Your task to perform on an android device: Go to Google Image 0: 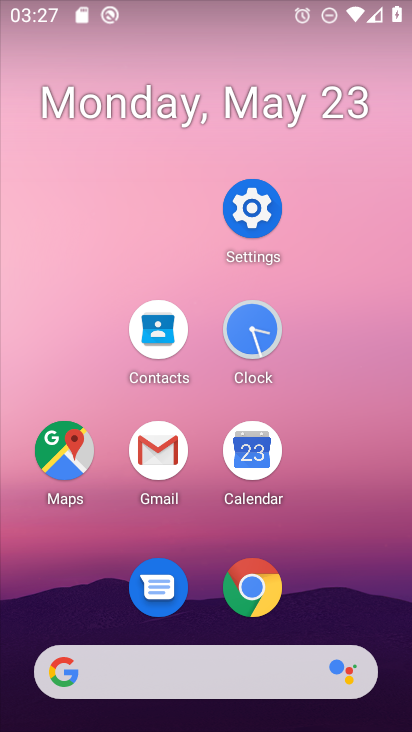
Step 0: click (241, 672)
Your task to perform on an android device: Go to Google Image 1: 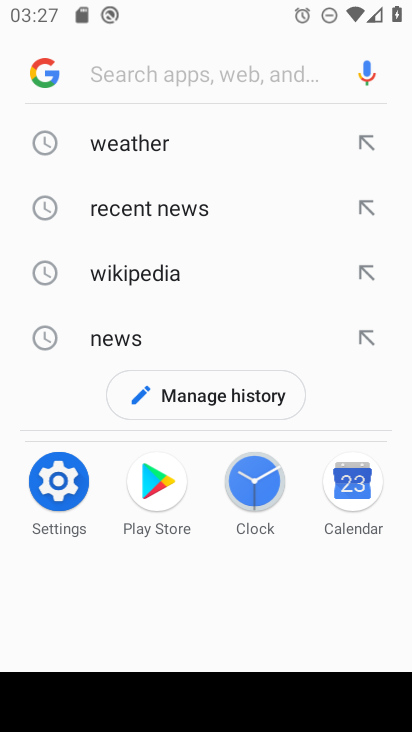
Step 1: type "googl.com"
Your task to perform on an android device: Go to Google Image 2: 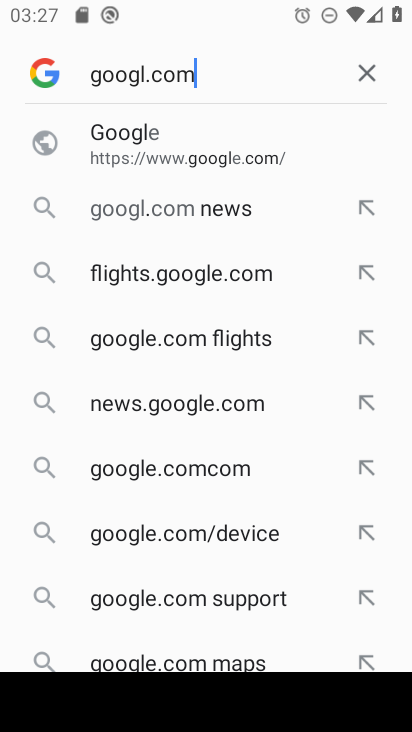
Step 2: click (156, 144)
Your task to perform on an android device: Go to Google Image 3: 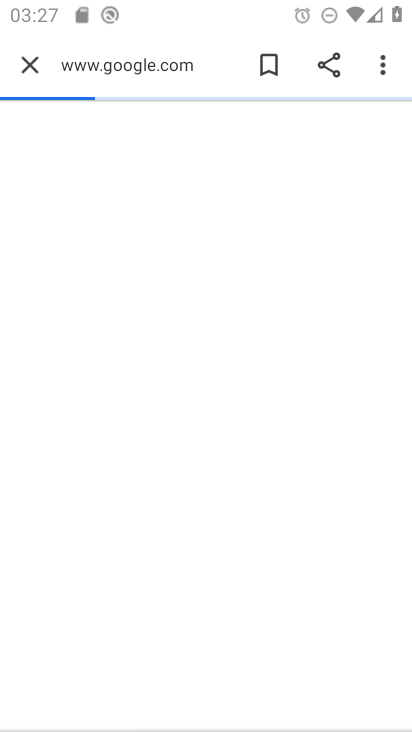
Step 3: task complete